Your task to perform on an android device: check google app version Image 0: 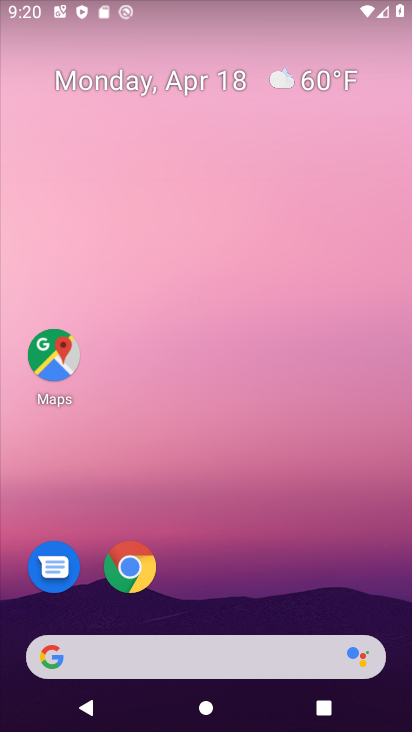
Step 0: drag from (160, 27) to (209, 27)
Your task to perform on an android device: check google app version Image 1: 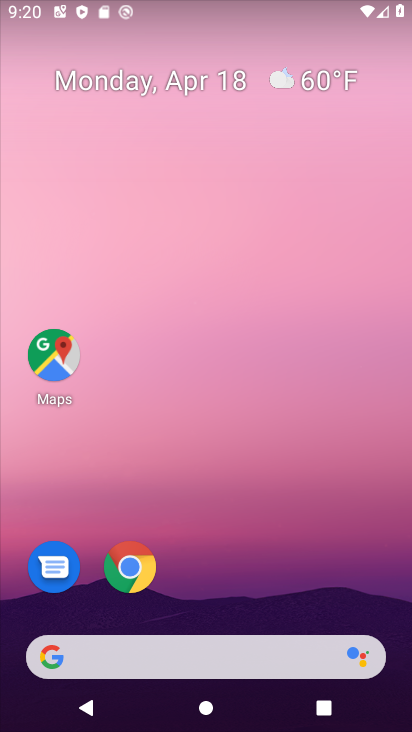
Step 1: drag from (205, 533) to (246, 3)
Your task to perform on an android device: check google app version Image 2: 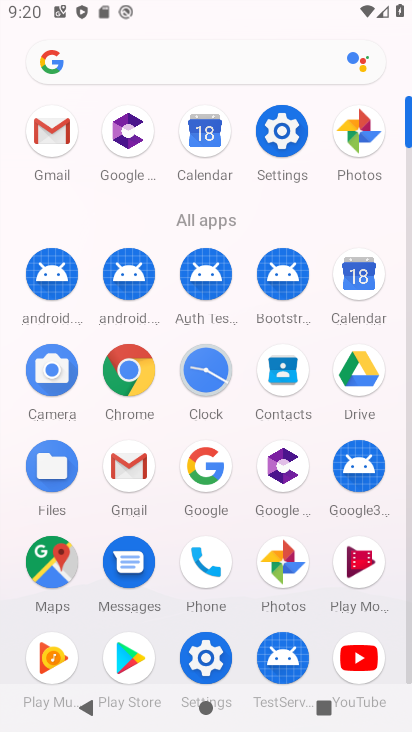
Step 2: click (281, 153)
Your task to perform on an android device: check google app version Image 3: 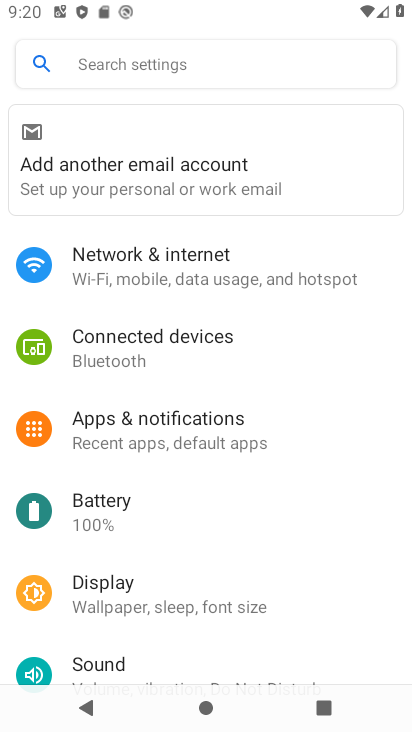
Step 3: drag from (213, 583) to (279, 86)
Your task to perform on an android device: check google app version Image 4: 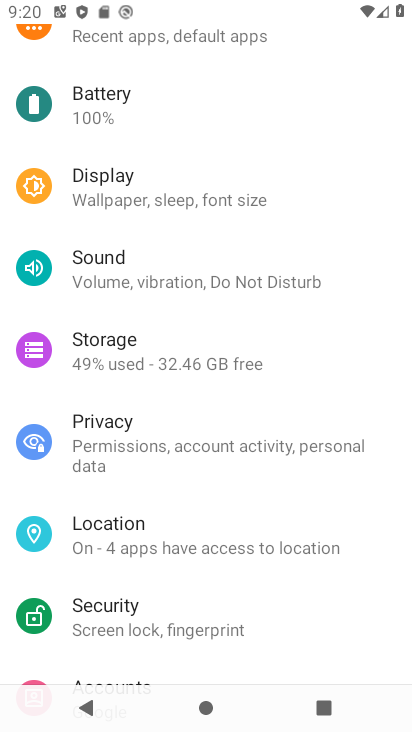
Step 4: drag from (215, 640) to (265, 164)
Your task to perform on an android device: check google app version Image 5: 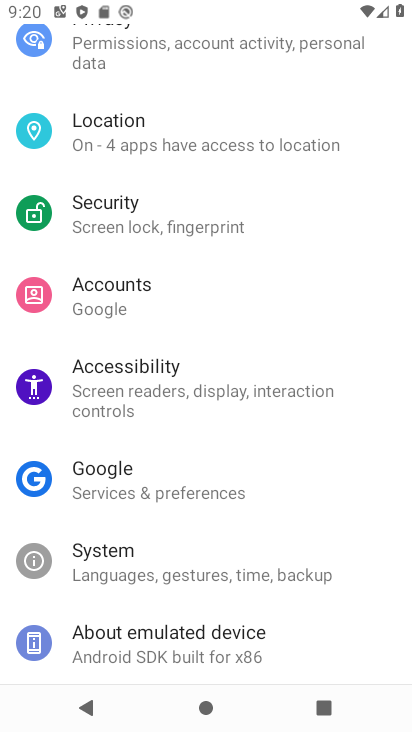
Step 5: click (175, 635)
Your task to perform on an android device: check google app version Image 6: 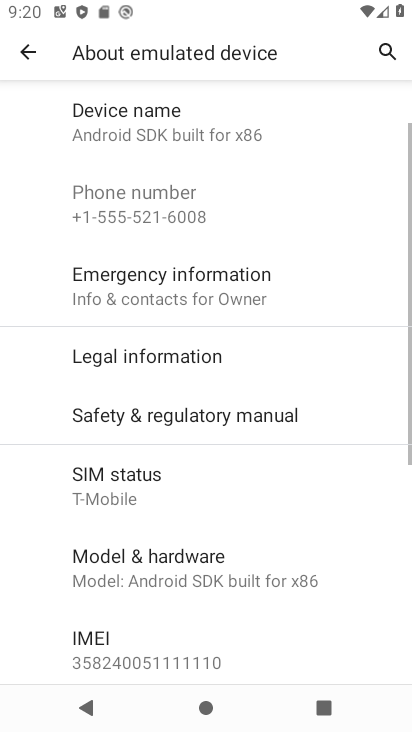
Step 6: drag from (182, 605) to (247, 183)
Your task to perform on an android device: check google app version Image 7: 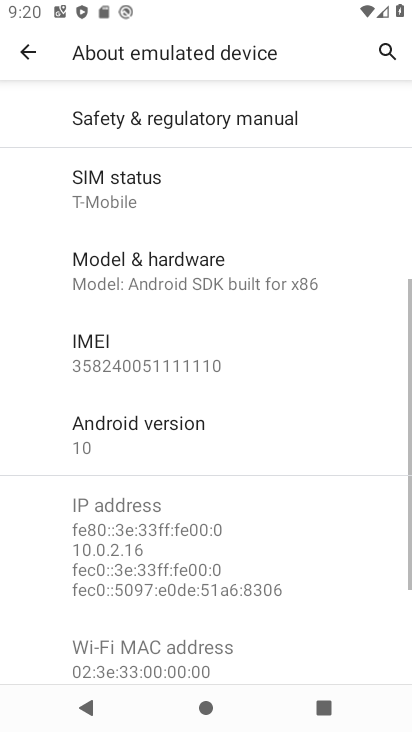
Step 7: click (172, 455)
Your task to perform on an android device: check google app version Image 8: 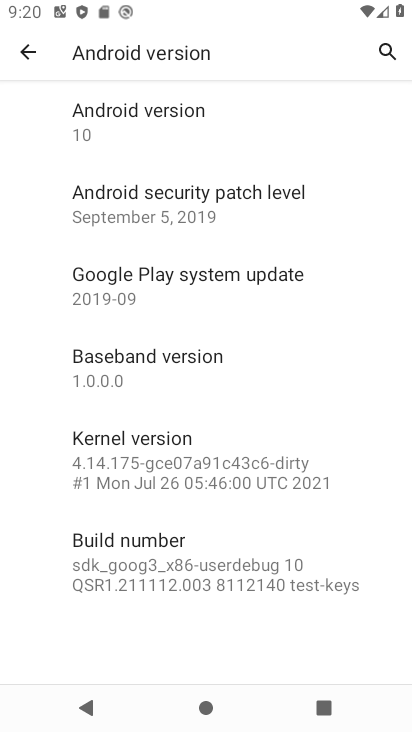
Step 8: click (239, 280)
Your task to perform on an android device: check google app version Image 9: 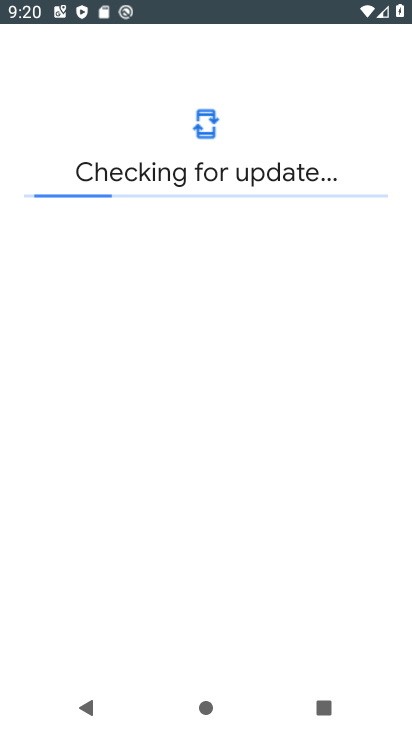
Step 9: task complete